Your task to perform on an android device: check the backup settings in the google photos Image 0: 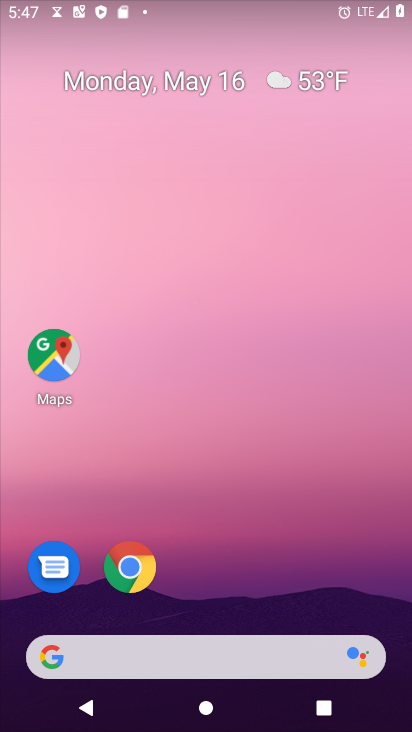
Step 0: drag from (128, 682) to (195, 59)
Your task to perform on an android device: check the backup settings in the google photos Image 1: 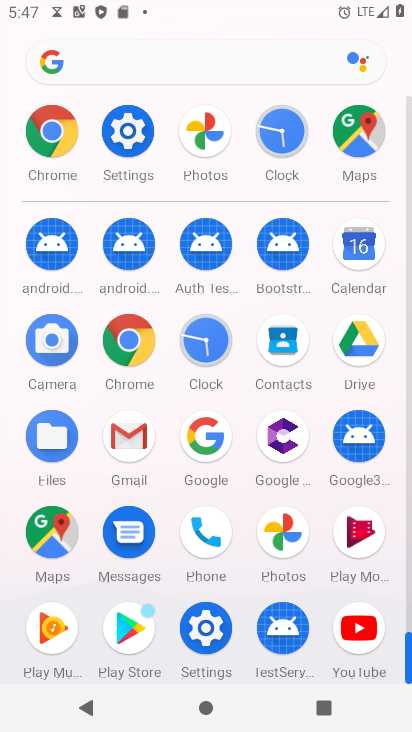
Step 1: click (280, 535)
Your task to perform on an android device: check the backup settings in the google photos Image 2: 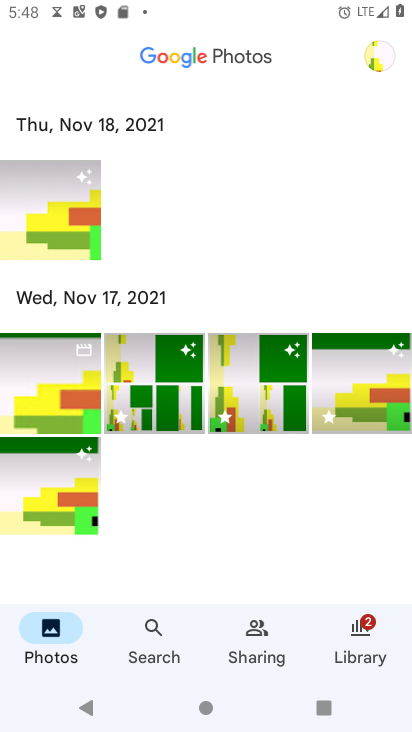
Step 2: click (395, 59)
Your task to perform on an android device: check the backup settings in the google photos Image 3: 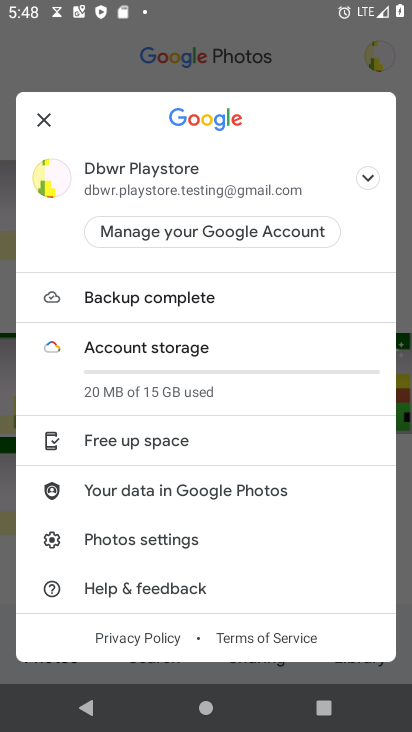
Step 3: click (187, 539)
Your task to perform on an android device: check the backup settings in the google photos Image 4: 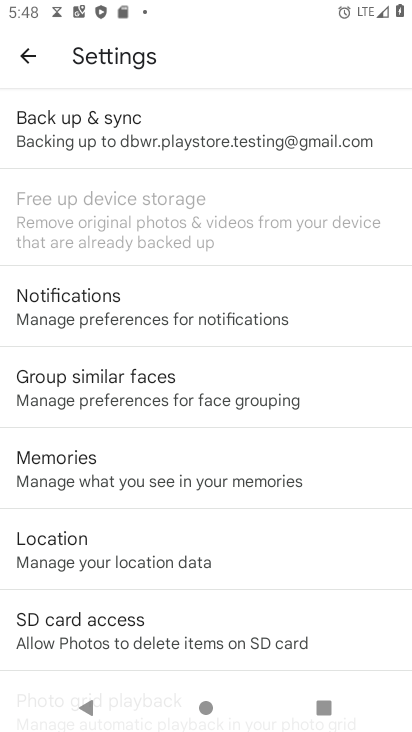
Step 4: click (209, 133)
Your task to perform on an android device: check the backup settings in the google photos Image 5: 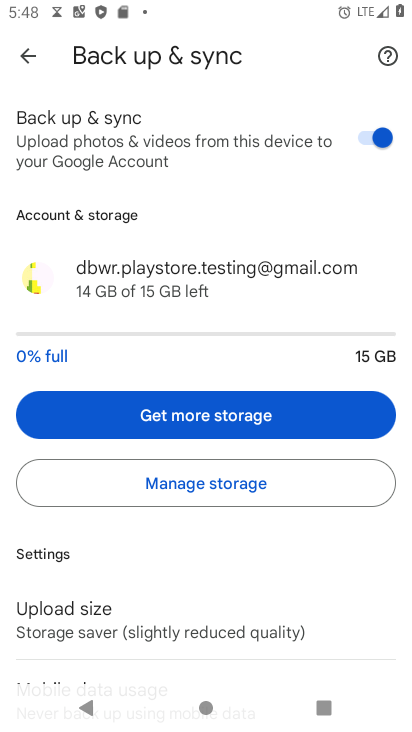
Step 5: task complete